Your task to perform on an android device: turn pop-ups off in chrome Image 0: 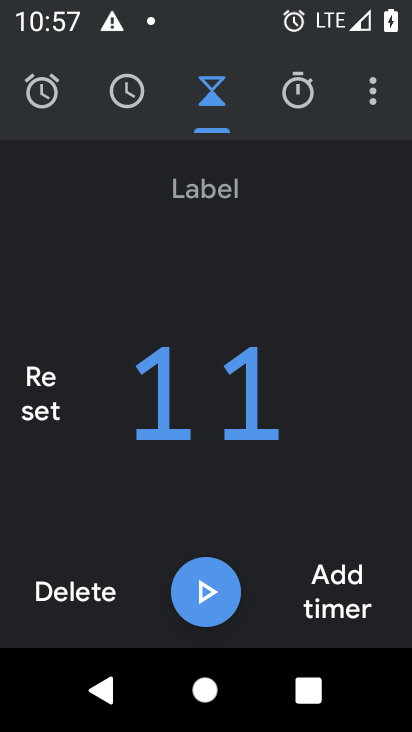
Step 0: press home button
Your task to perform on an android device: turn pop-ups off in chrome Image 1: 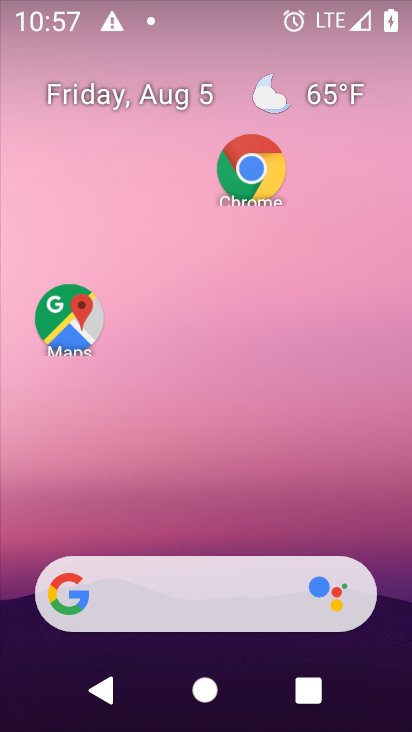
Step 1: click (212, 176)
Your task to perform on an android device: turn pop-ups off in chrome Image 2: 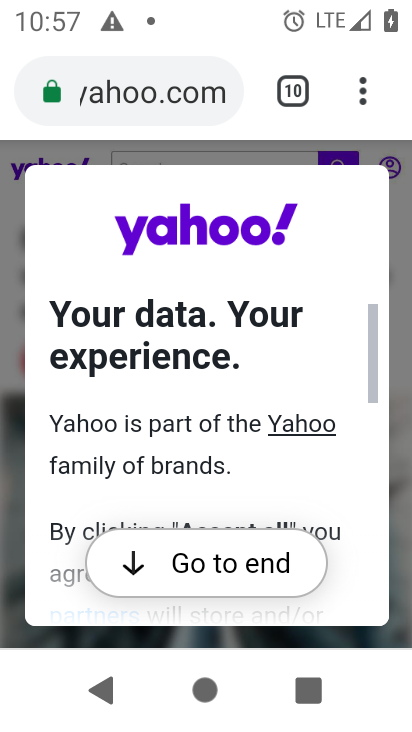
Step 2: click (360, 92)
Your task to perform on an android device: turn pop-ups off in chrome Image 3: 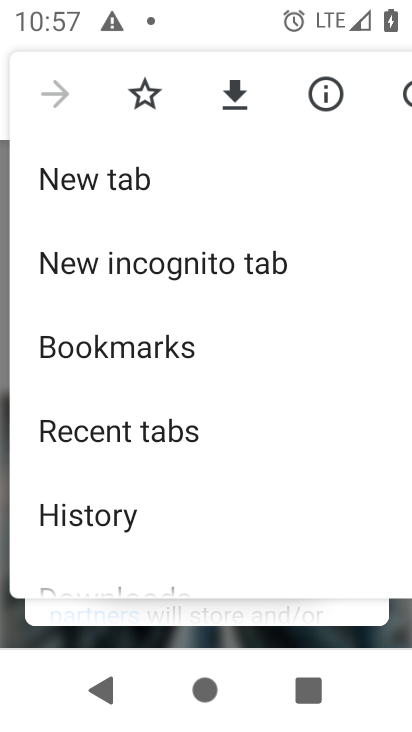
Step 3: drag from (161, 490) to (176, 128)
Your task to perform on an android device: turn pop-ups off in chrome Image 4: 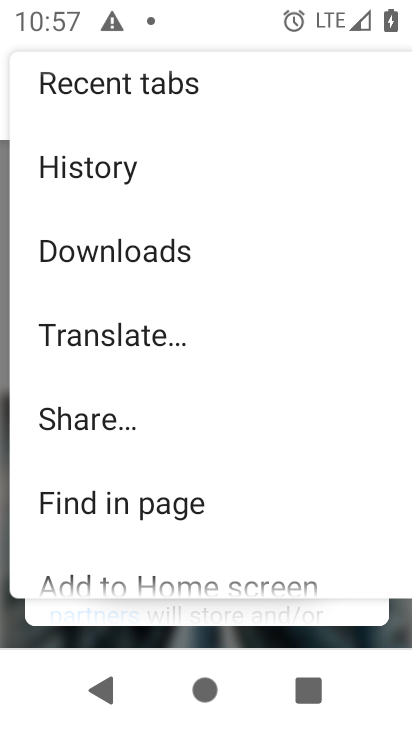
Step 4: drag from (169, 485) to (179, 119)
Your task to perform on an android device: turn pop-ups off in chrome Image 5: 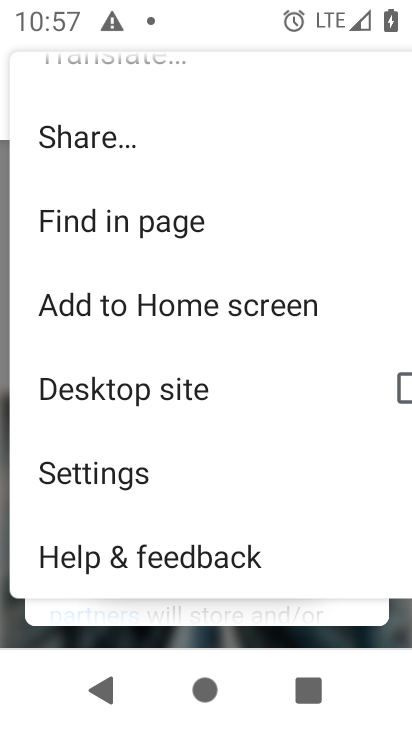
Step 5: click (129, 490)
Your task to perform on an android device: turn pop-ups off in chrome Image 6: 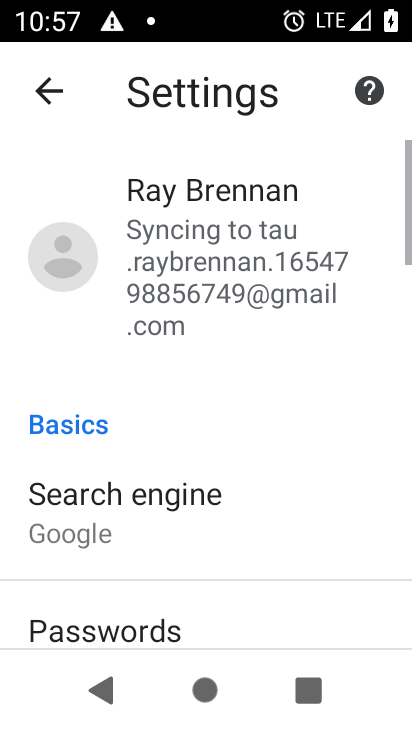
Step 6: drag from (129, 480) to (131, 118)
Your task to perform on an android device: turn pop-ups off in chrome Image 7: 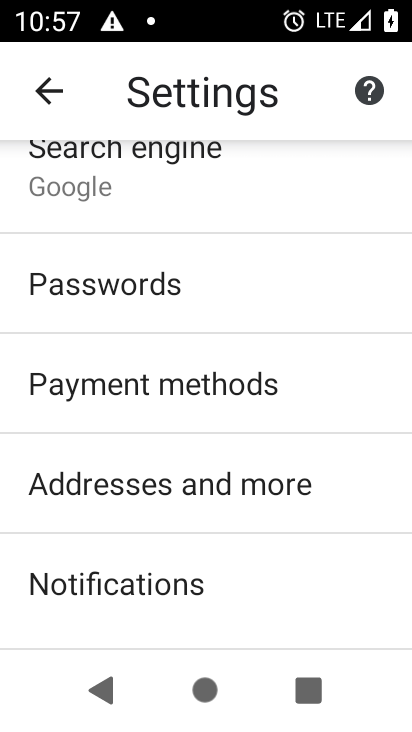
Step 7: drag from (188, 524) to (176, 173)
Your task to perform on an android device: turn pop-ups off in chrome Image 8: 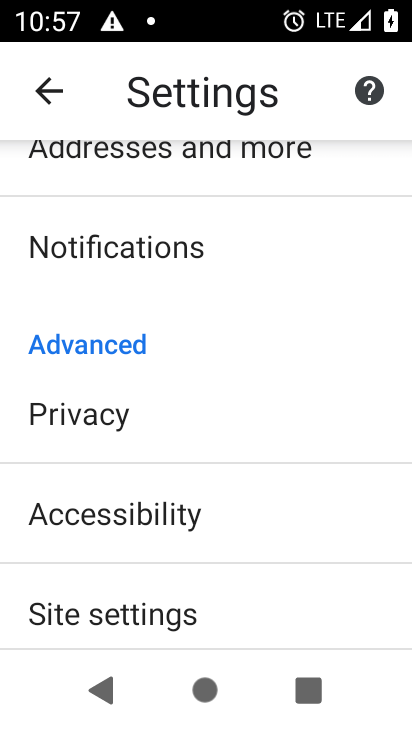
Step 8: drag from (164, 608) to (164, 275)
Your task to perform on an android device: turn pop-ups off in chrome Image 9: 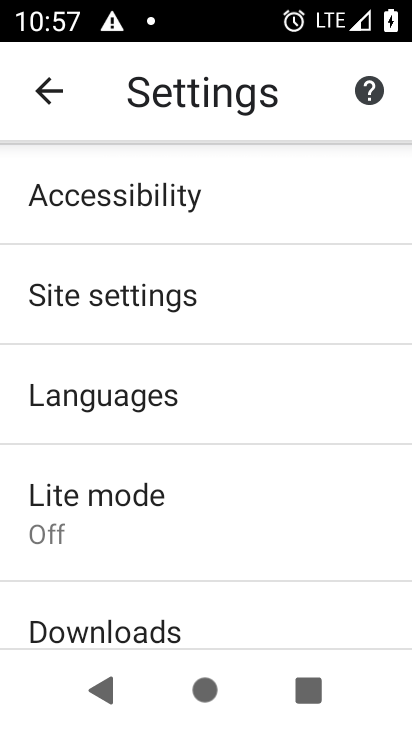
Step 9: click (129, 312)
Your task to perform on an android device: turn pop-ups off in chrome Image 10: 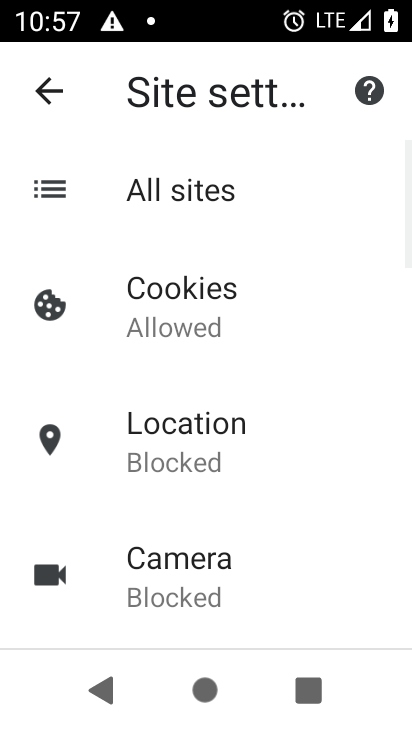
Step 10: drag from (188, 547) to (220, 236)
Your task to perform on an android device: turn pop-ups off in chrome Image 11: 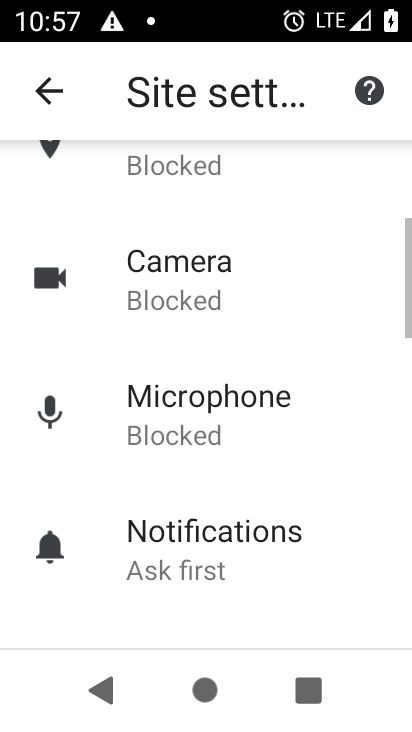
Step 11: drag from (214, 537) to (216, 214)
Your task to perform on an android device: turn pop-ups off in chrome Image 12: 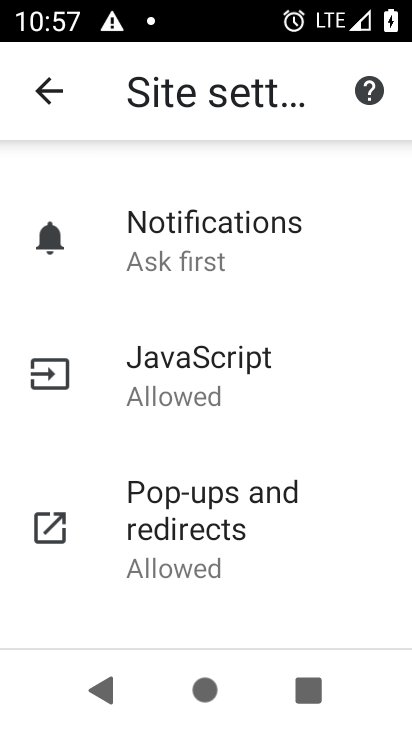
Step 12: click (216, 499)
Your task to perform on an android device: turn pop-ups off in chrome Image 13: 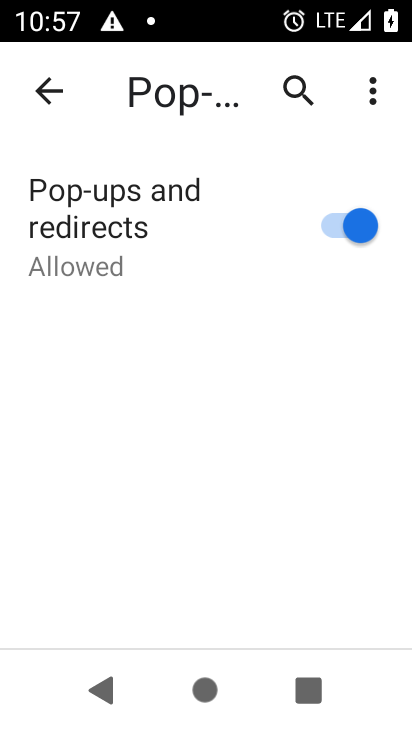
Step 13: click (345, 213)
Your task to perform on an android device: turn pop-ups off in chrome Image 14: 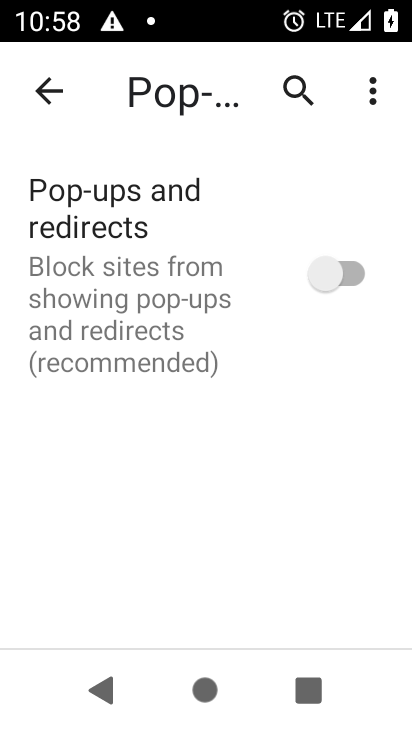
Step 14: task complete